Your task to perform on an android device: turn on javascript in the chrome app Image 0: 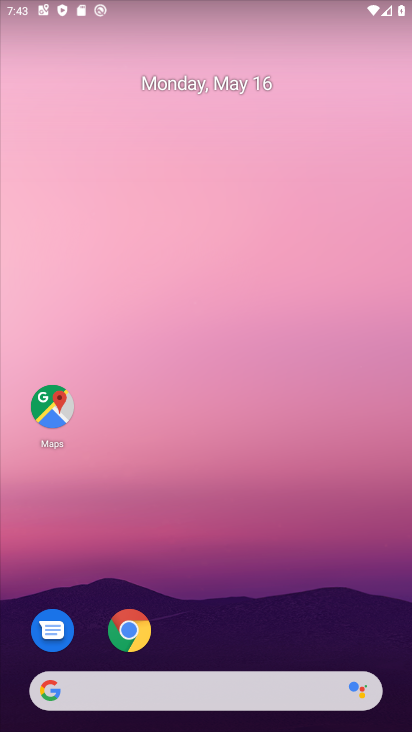
Step 0: click (126, 624)
Your task to perform on an android device: turn on javascript in the chrome app Image 1: 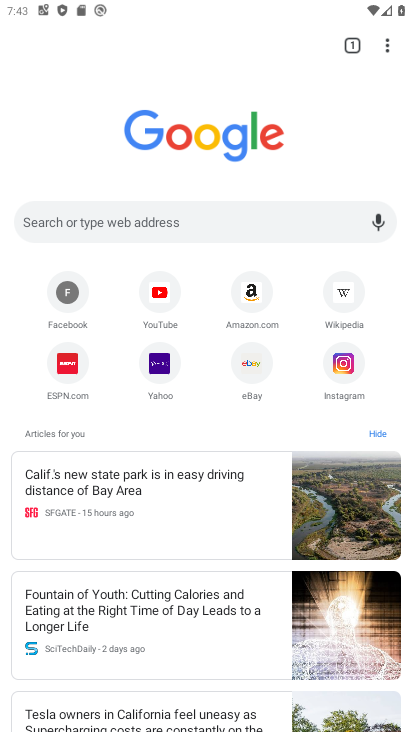
Step 1: click (377, 48)
Your task to perform on an android device: turn on javascript in the chrome app Image 2: 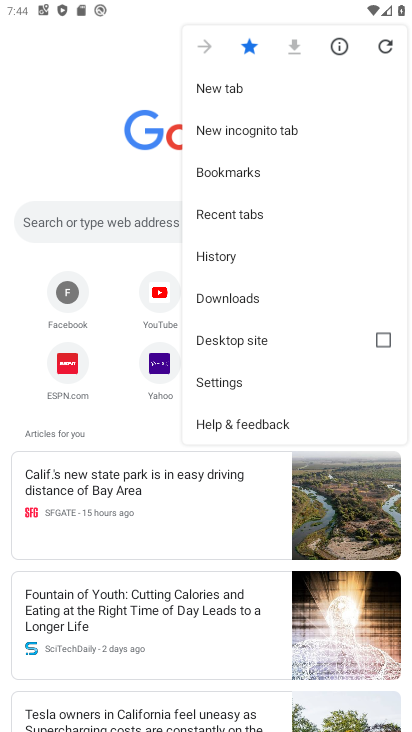
Step 2: click (200, 372)
Your task to perform on an android device: turn on javascript in the chrome app Image 3: 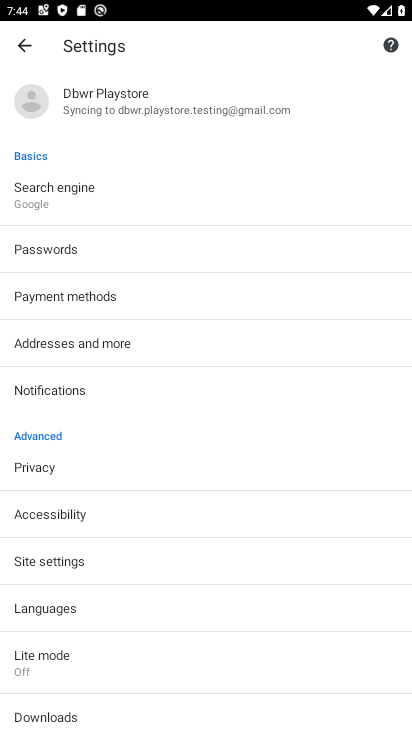
Step 3: drag from (118, 643) to (183, 146)
Your task to perform on an android device: turn on javascript in the chrome app Image 4: 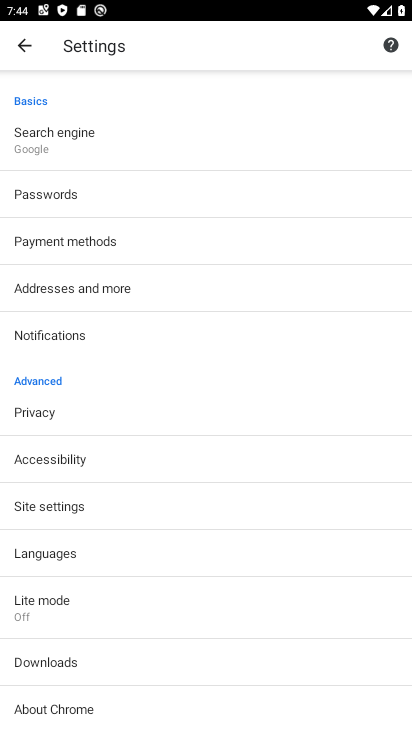
Step 4: click (143, 499)
Your task to perform on an android device: turn on javascript in the chrome app Image 5: 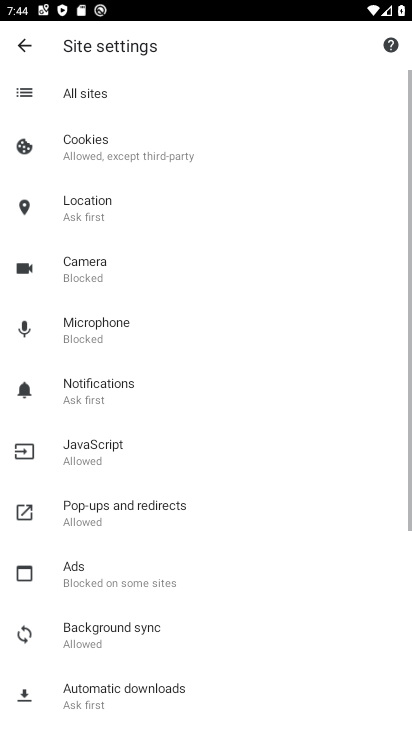
Step 5: drag from (193, 566) to (235, 276)
Your task to perform on an android device: turn on javascript in the chrome app Image 6: 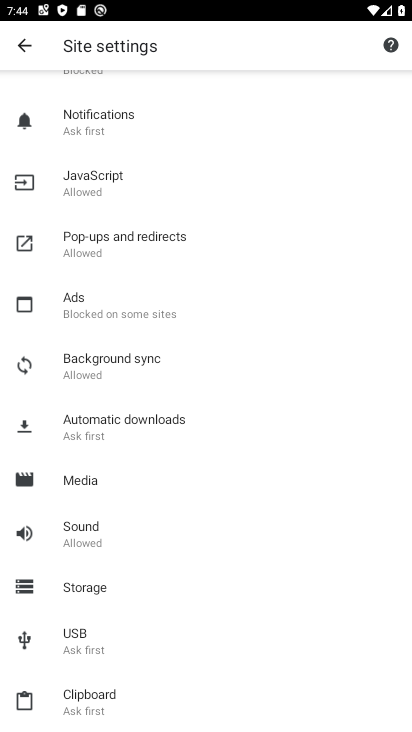
Step 6: click (126, 174)
Your task to perform on an android device: turn on javascript in the chrome app Image 7: 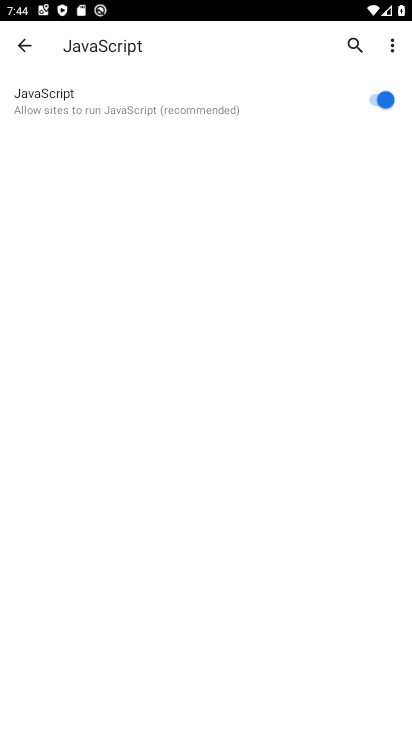
Step 7: task complete